Your task to perform on an android device: change alarm snooze length Image 0: 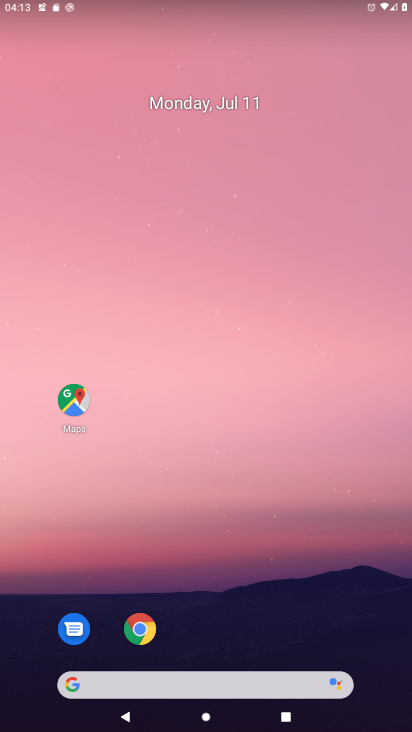
Step 0: drag from (263, 522) to (337, 14)
Your task to perform on an android device: change alarm snooze length Image 1: 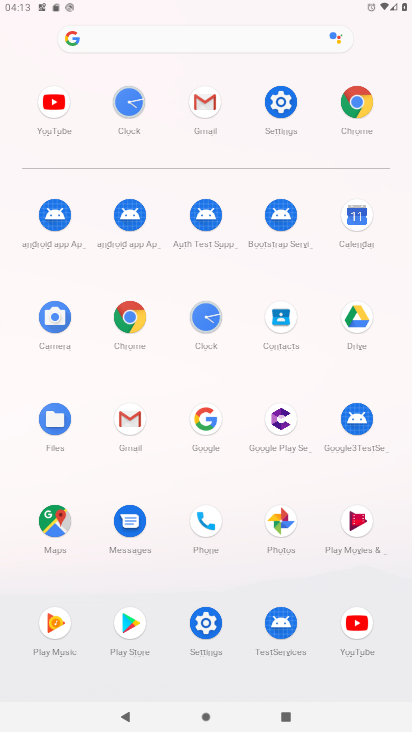
Step 1: click (202, 319)
Your task to perform on an android device: change alarm snooze length Image 2: 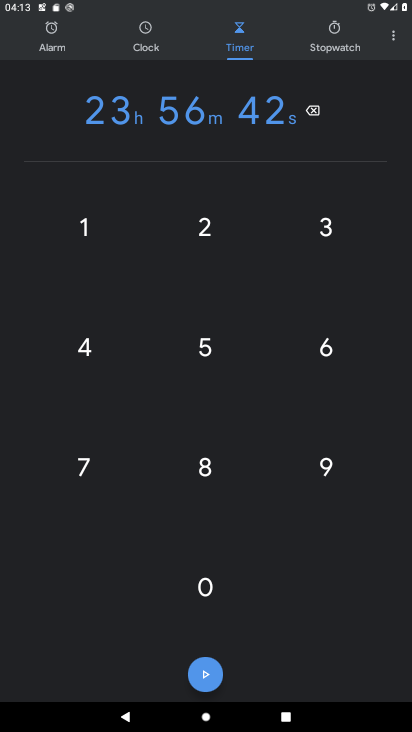
Step 2: drag from (395, 33) to (381, 69)
Your task to perform on an android device: change alarm snooze length Image 3: 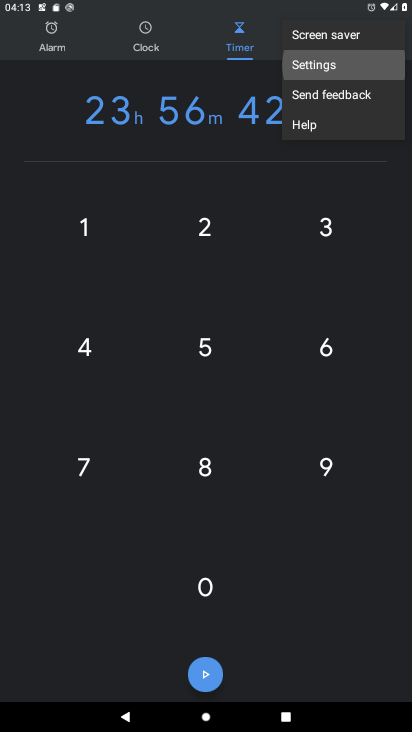
Step 3: click (397, 29)
Your task to perform on an android device: change alarm snooze length Image 4: 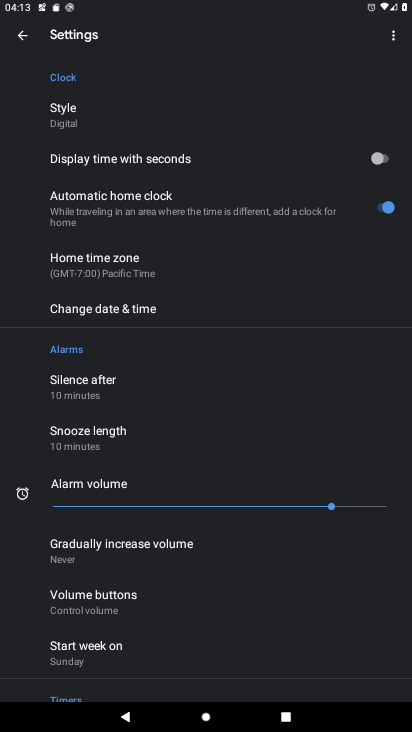
Step 4: click (58, 436)
Your task to perform on an android device: change alarm snooze length Image 5: 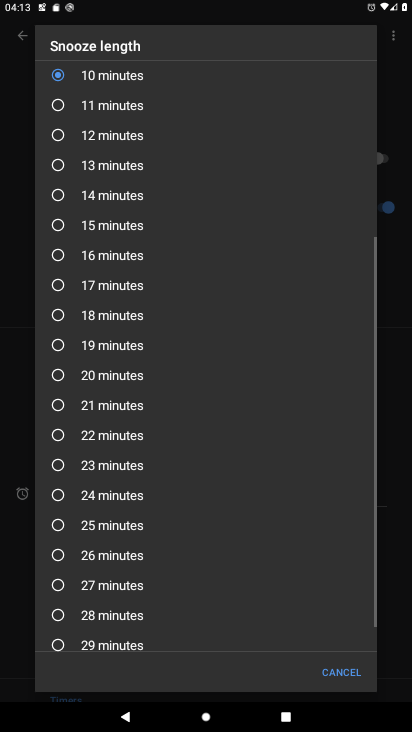
Step 5: click (81, 107)
Your task to perform on an android device: change alarm snooze length Image 6: 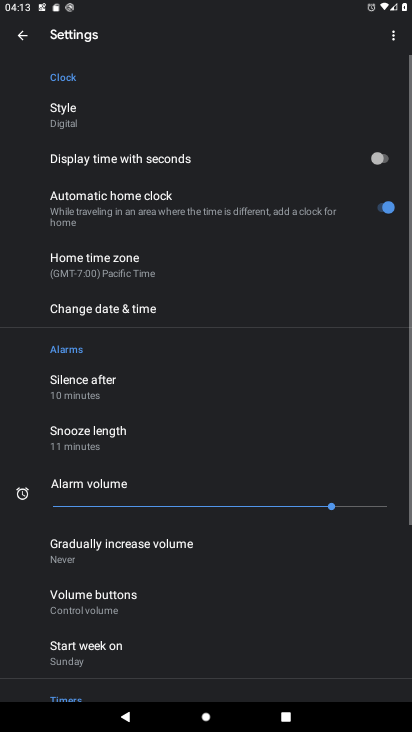
Step 6: task complete